Your task to perform on an android device: turn on the 24-hour format for clock Image 0: 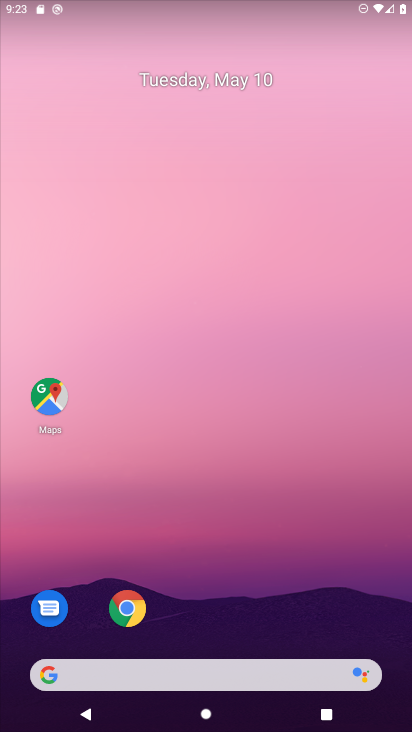
Step 0: drag from (408, 635) to (293, 109)
Your task to perform on an android device: turn on the 24-hour format for clock Image 1: 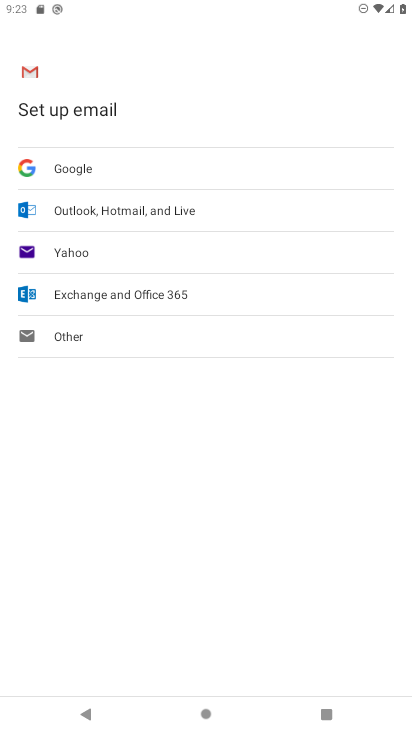
Step 1: press home button
Your task to perform on an android device: turn on the 24-hour format for clock Image 2: 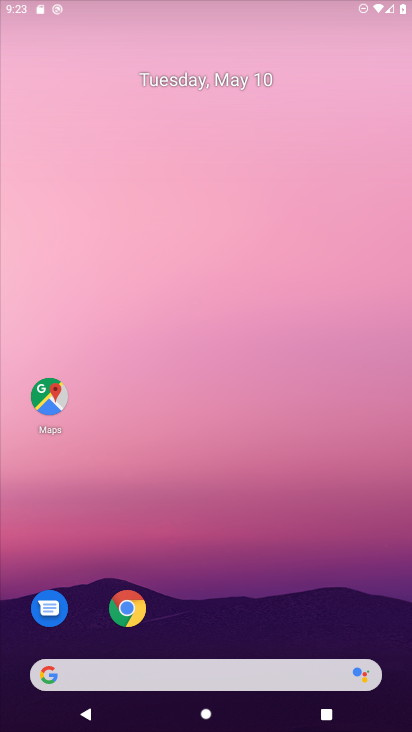
Step 2: drag from (391, 550) to (298, 73)
Your task to perform on an android device: turn on the 24-hour format for clock Image 3: 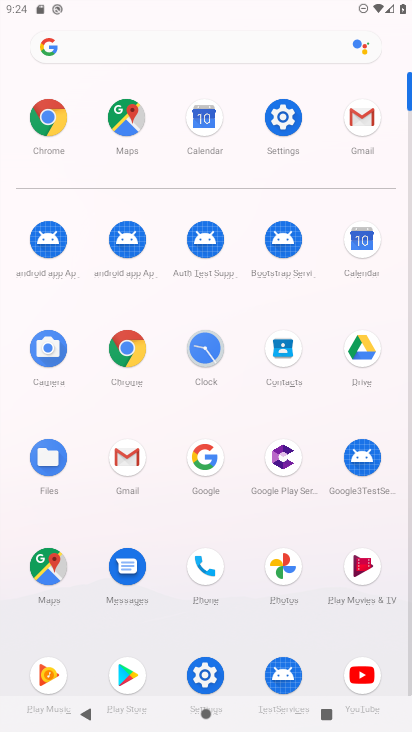
Step 3: click (208, 352)
Your task to perform on an android device: turn on the 24-hour format for clock Image 4: 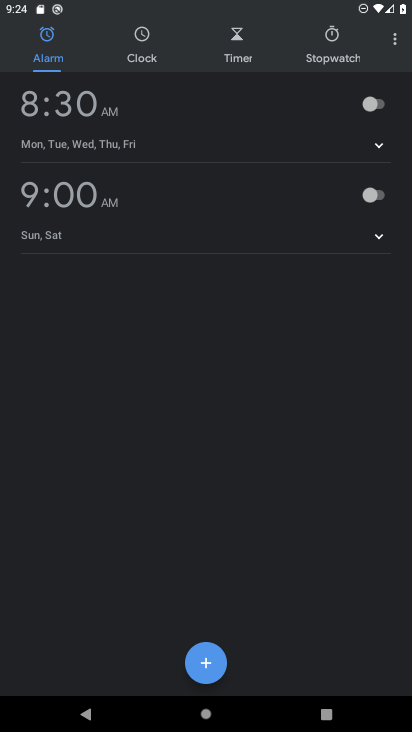
Step 4: click (395, 36)
Your task to perform on an android device: turn on the 24-hour format for clock Image 5: 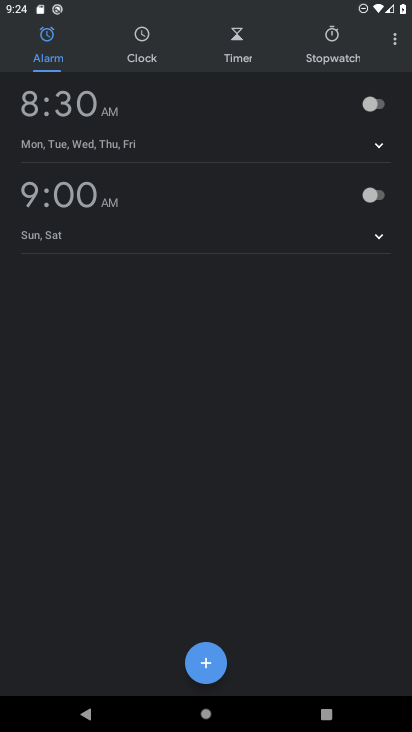
Step 5: click (395, 36)
Your task to perform on an android device: turn on the 24-hour format for clock Image 6: 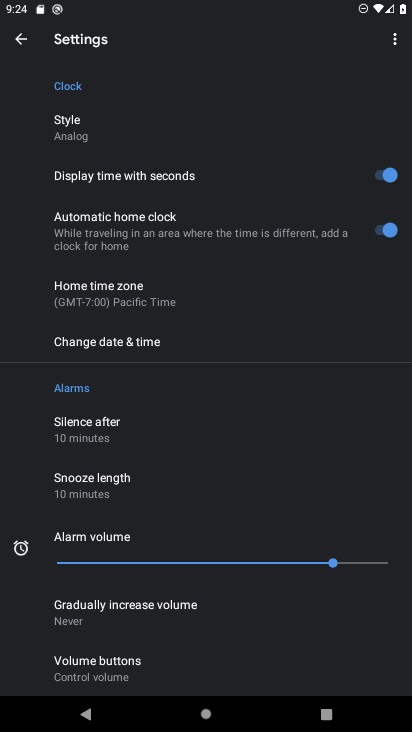
Step 6: click (137, 341)
Your task to perform on an android device: turn on the 24-hour format for clock Image 7: 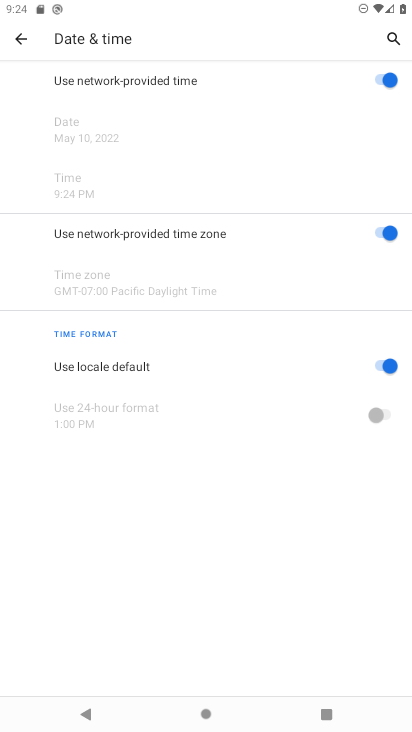
Step 7: task complete